Your task to perform on an android device: toggle location history Image 0: 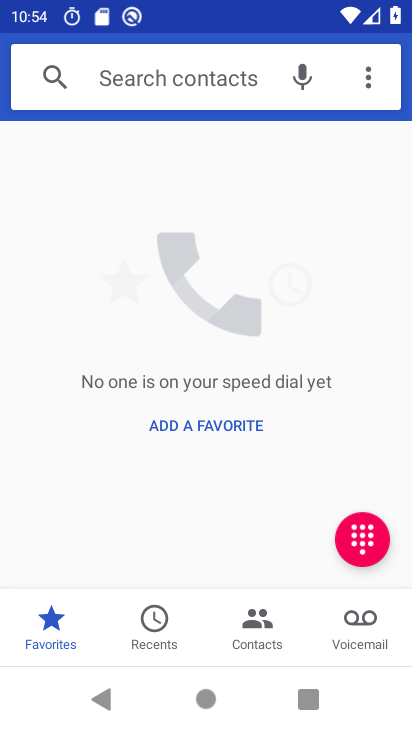
Step 0: press home button
Your task to perform on an android device: toggle location history Image 1: 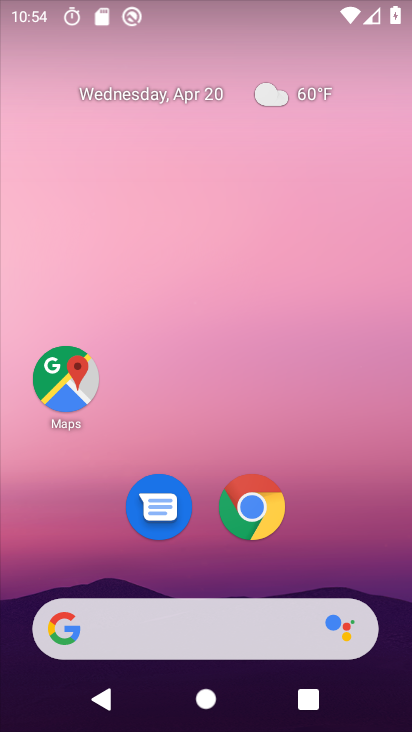
Step 1: drag from (204, 528) to (219, 105)
Your task to perform on an android device: toggle location history Image 2: 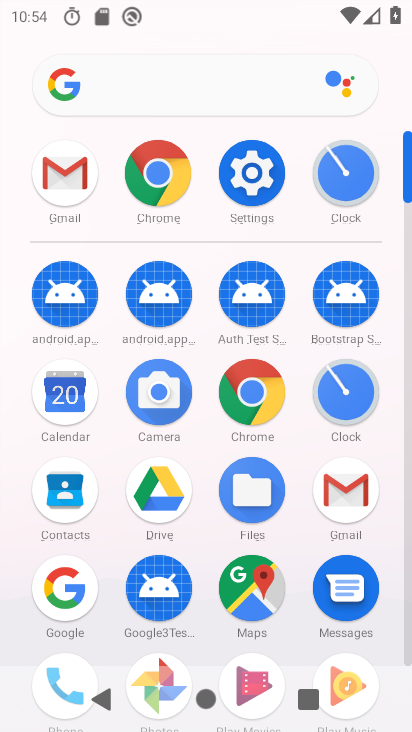
Step 2: click (246, 171)
Your task to perform on an android device: toggle location history Image 3: 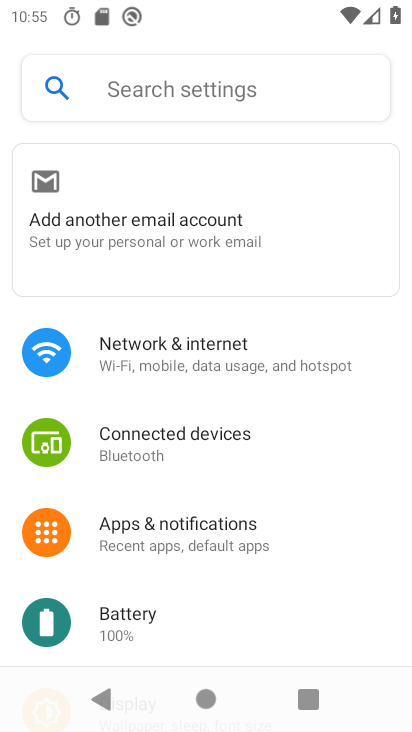
Step 3: drag from (217, 583) to (242, 256)
Your task to perform on an android device: toggle location history Image 4: 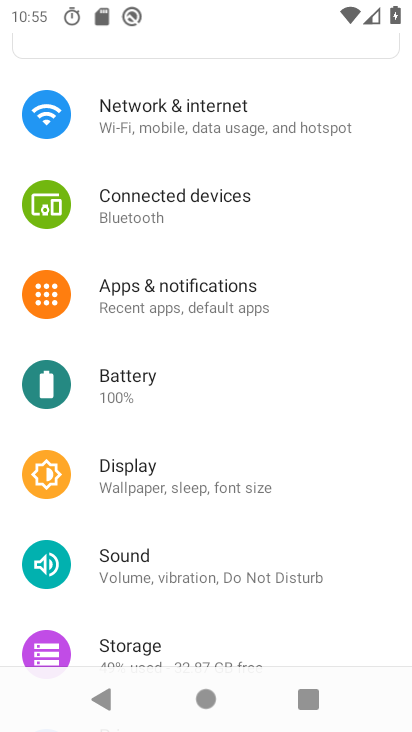
Step 4: drag from (198, 592) to (213, 164)
Your task to perform on an android device: toggle location history Image 5: 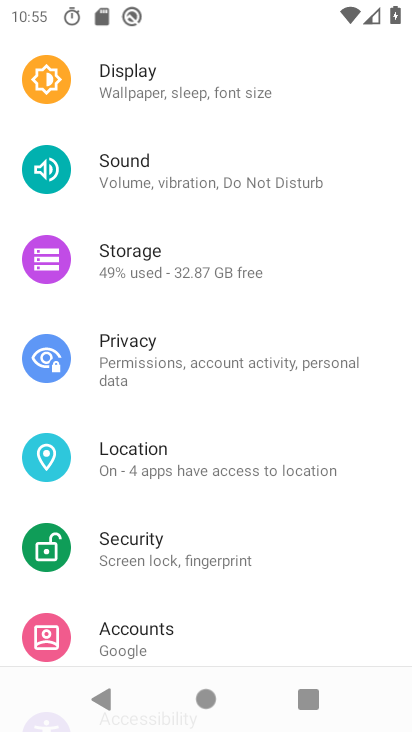
Step 5: click (194, 463)
Your task to perform on an android device: toggle location history Image 6: 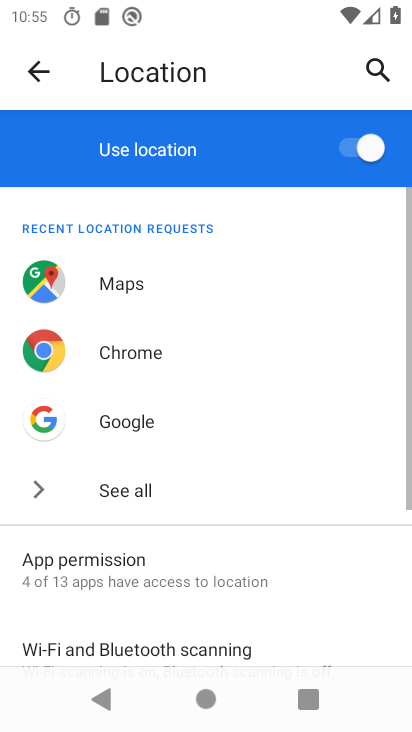
Step 6: click (358, 143)
Your task to perform on an android device: toggle location history Image 7: 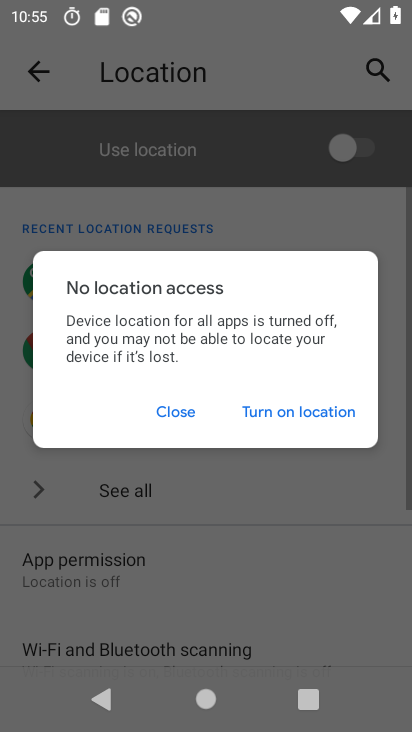
Step 7: task complete